Your task to perform on an android device: open chrome privacy settings Image 0: 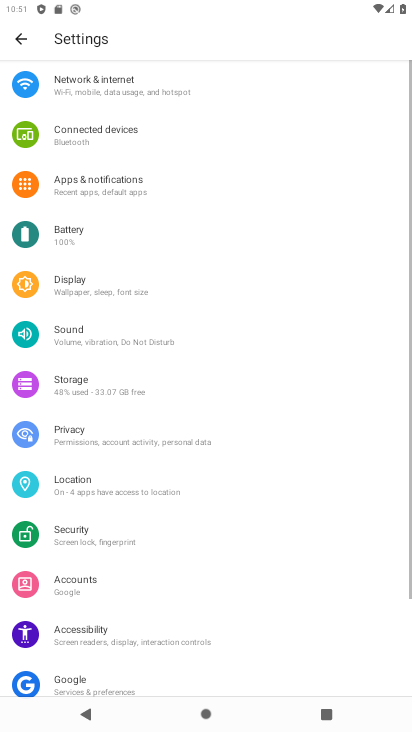
Step 0: press home button
Your task to perform on an android device: open chrome privacy settings Image 1: 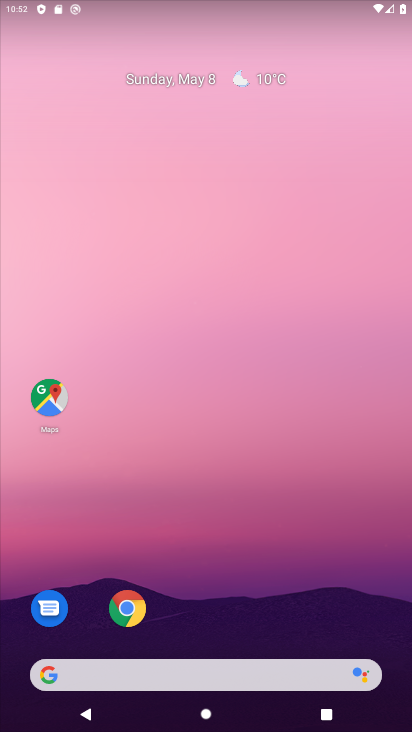
Step 1: drag from (289, 570) to (204, 93)
Your task to perform on an android device: open chrome privacy settings Image 2: 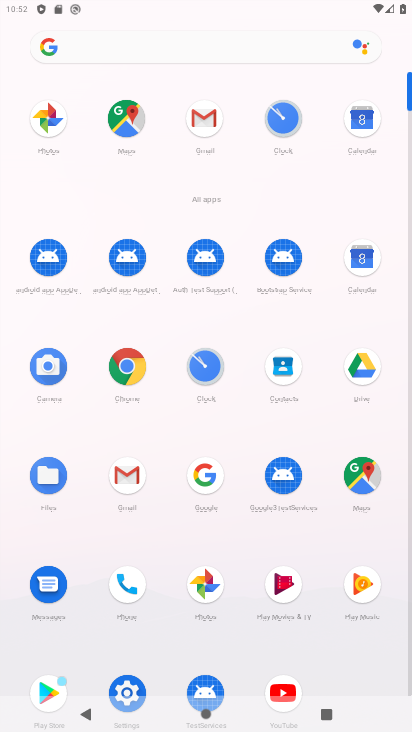
Step 2: click (113, 691)
Your task to perform on an android device: open chrome privacy settings Image 3: 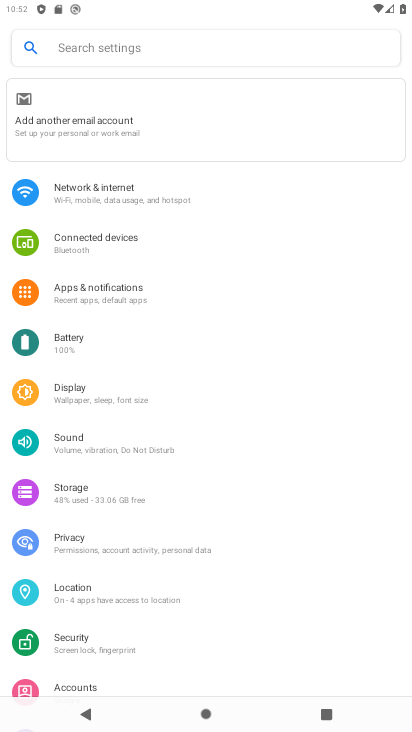
Step 3: drag from (181, 579) to (192, 223)
Your task to perform on an android device: open chrome privacy settings Image 4: 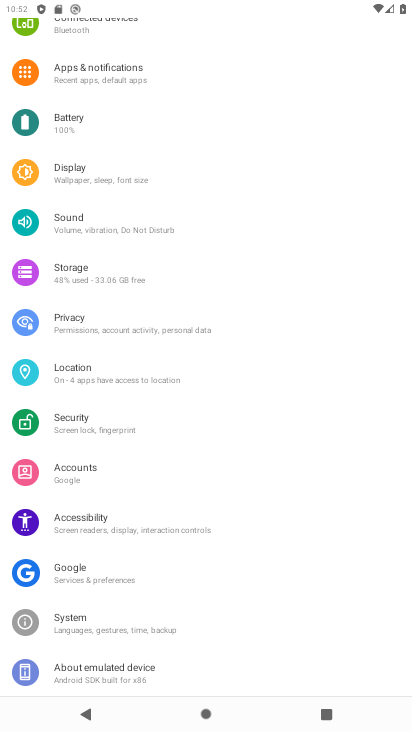
Step 4: click (68, 331)
Your task to perform on an android device: open chrome privacy settings Image 5: 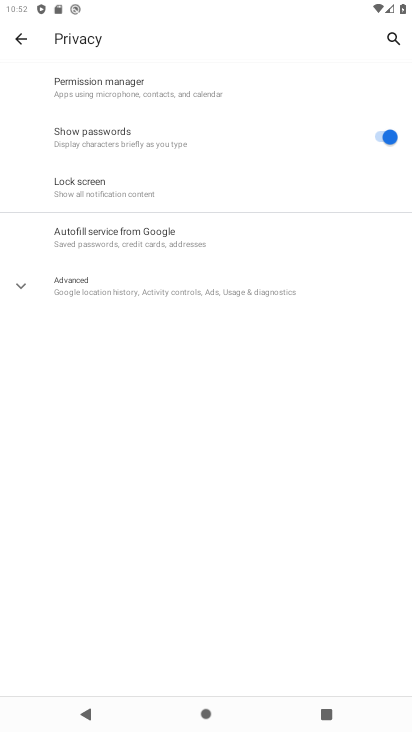
Step 5: task complete